Your task to perform on an android device: Play the last video I watched on Youtube Image 0: 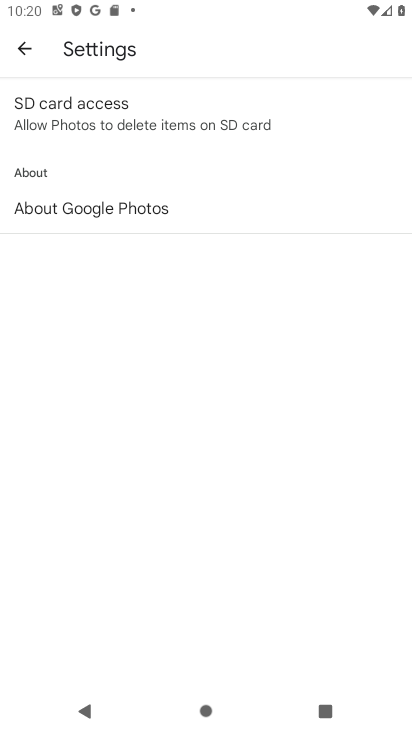
Step 0: press home button
Your task to perform on an android device: Play the last video I watched on Youtube Image 1: 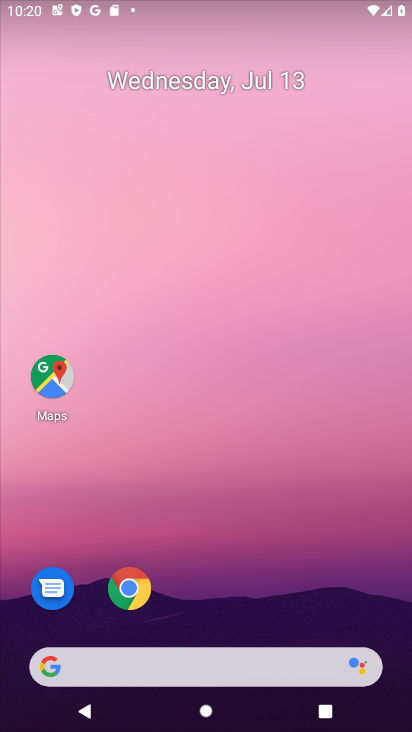
Step 1: drag from (230, 602) to (242, 85)
Your task to perform on an android device: Play the last video I watched on Youtube Image 2: 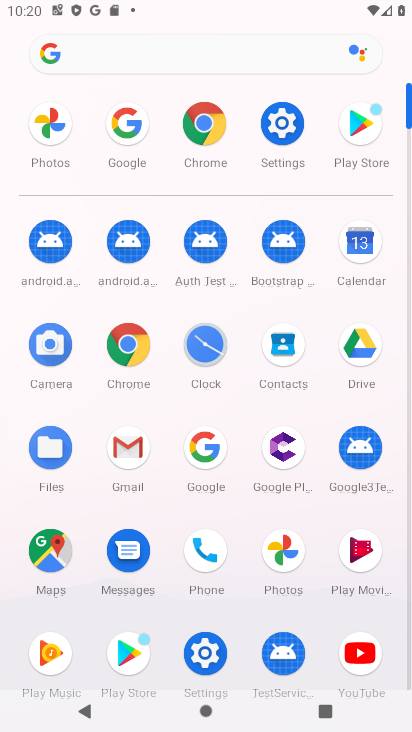
Step 2: click (365, 657)
Your task to perform on an android device: Play the last video I watched on Youtube Image 3: 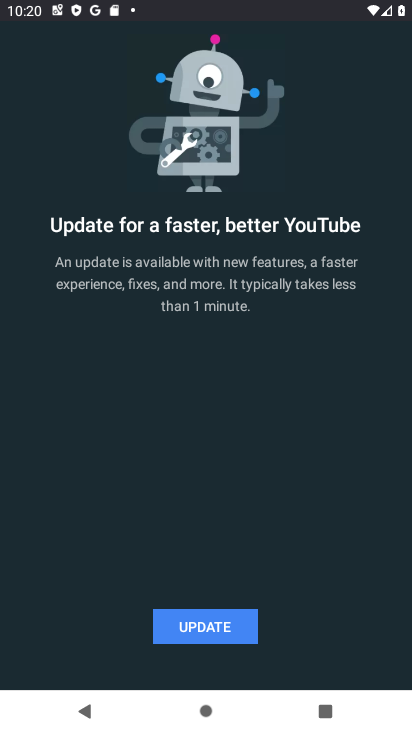
Step 3: click (185, 613)
Your task to perform on an android device: Play the last video I watched on Youtube Image 4: 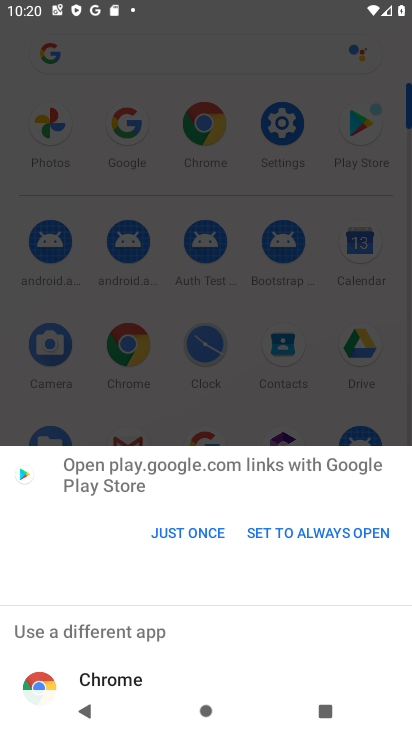
Step 4: drag from (231, 645) to (231, 433)
Your task to perform on an android device: Play the last video I watched on Youtube Image 5: 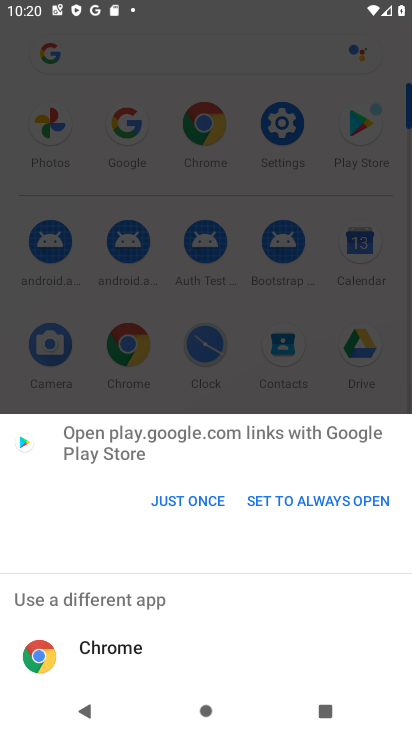
Step 5: click (166, 503)
Your task to perform on an android device: Play the last video I watched on Youtube Image 6: 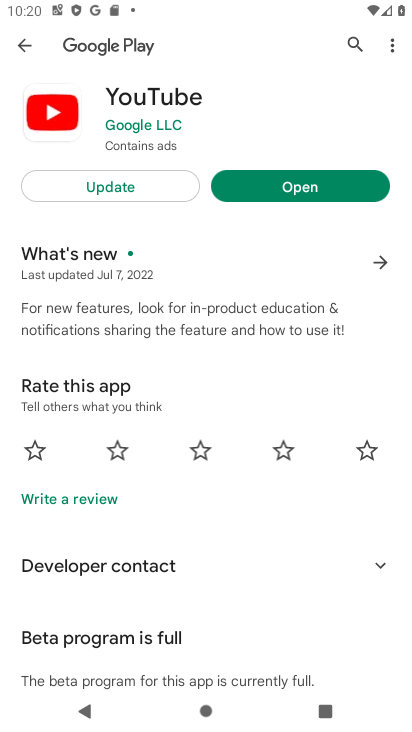
Step 6: click (110, 174)
Your task to perform on an android device: Play the last video I watched on Youtube Image 7: 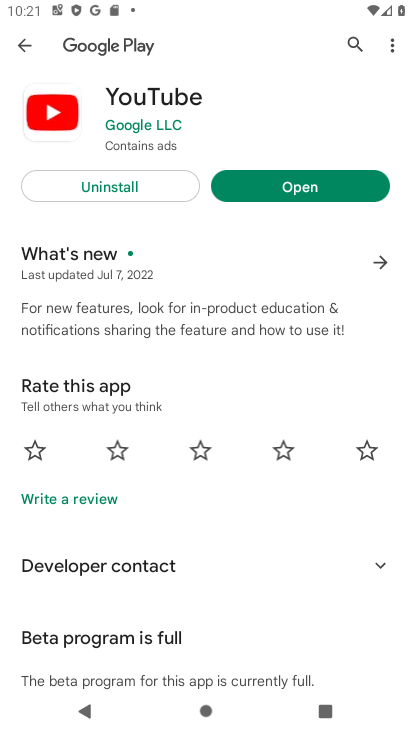
Step 7: click (268, 191)
Your task to perform on an android device: Play the last video I watched on Youtube Image 8: 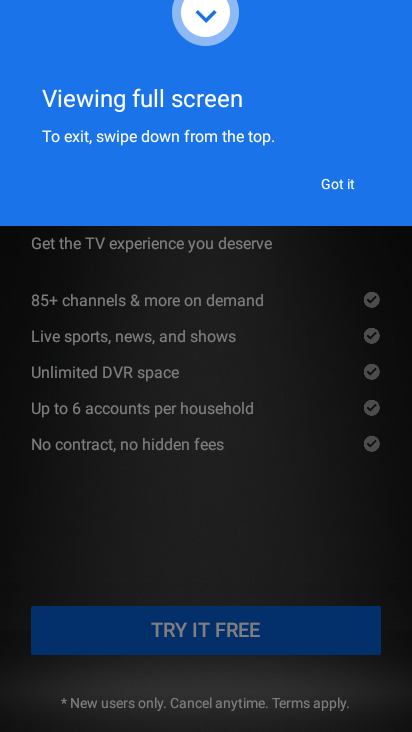
Step 8: click (345, 187)
Your task to perform on an android device: Play the last video I watched on Youtube Image 9: 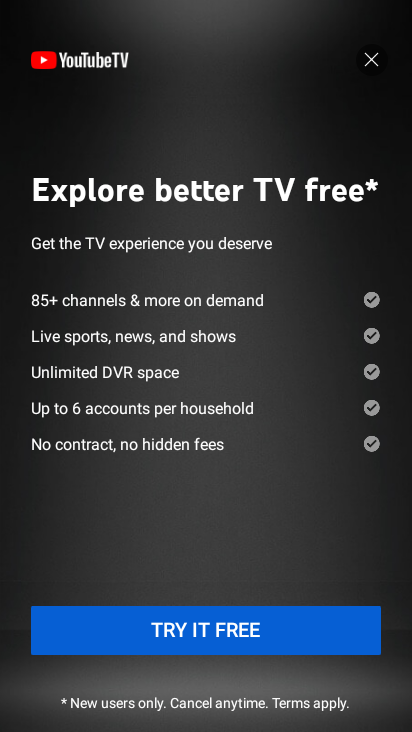
Step 9: click (370, 57)
Your task to perform on an android device: Play the last video I watched on Youtube Image 10: 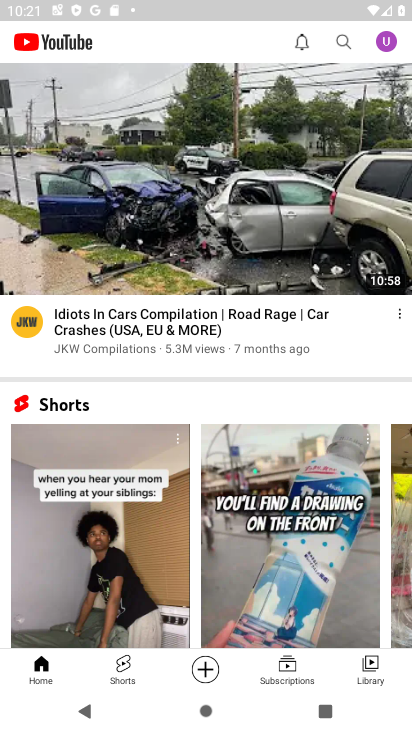
Step 10: click (350, 36)
Your task to perform on an android device: Play the last video I watched on Youtube Image 11: 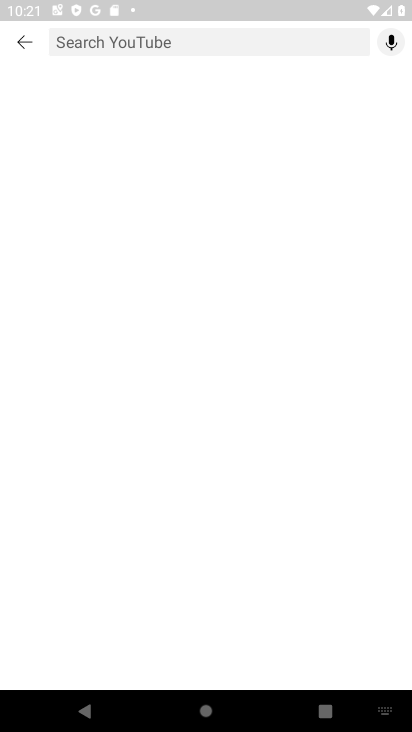
Step 11: task complete